Your task to perform on an android device: Is it going to rain tomorrow? Image 0: 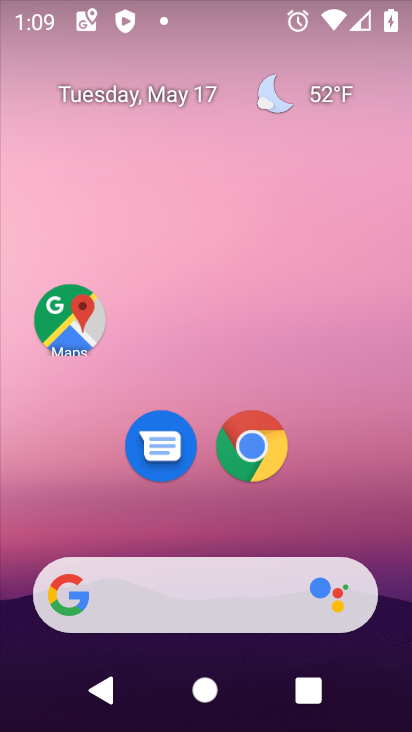
Step 0: click (251, 442)
Your task to perform on an android device: Is it going to rain tomorrow? Image 1: 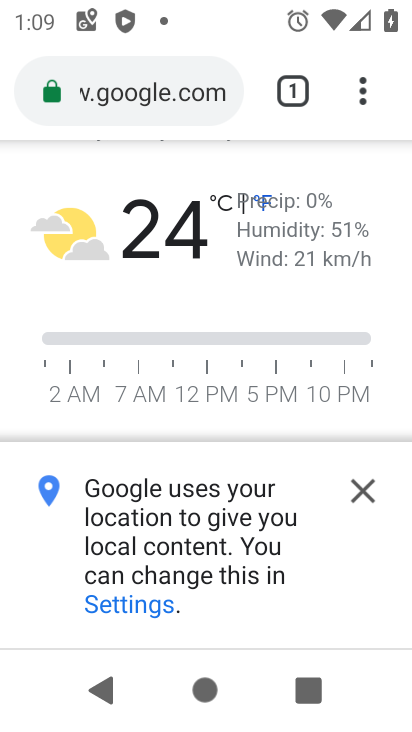
Step 1: click (141, 83)
Your task to perform on an android device: Is it going to rain tomorrow? Image 2: 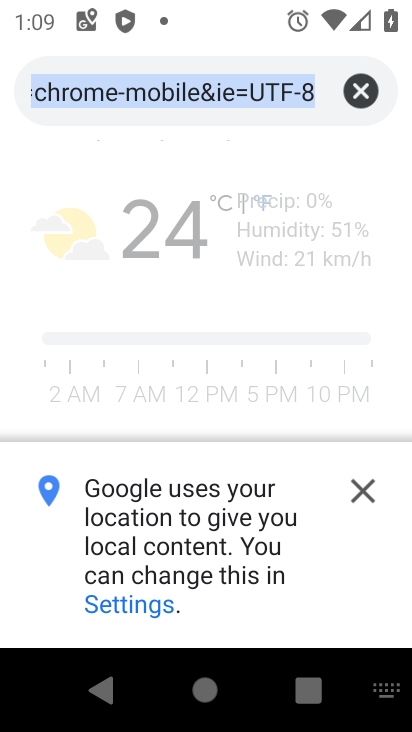
Step 2: type "Is it going to rain tomorrow?"
Your task to perform on an android device: Is it going to rain tomorrow? Image 3: 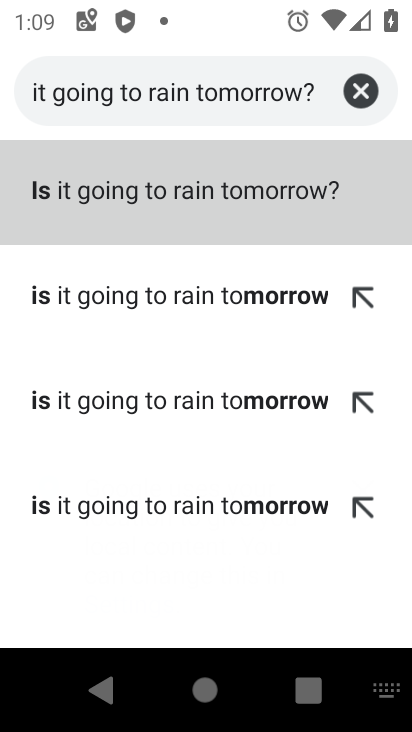
Step 3: click (253, 205)
Your task to perform on an android device: Is it going to rain tomorrow? Image 4: 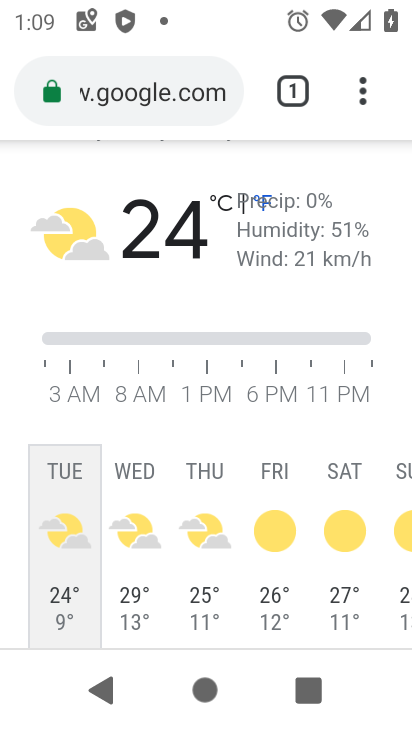
Step 4: task complete